Your task to perform on an android device: Add "duracell triple a" to the cart on ebay, then select checkout. Image 0: 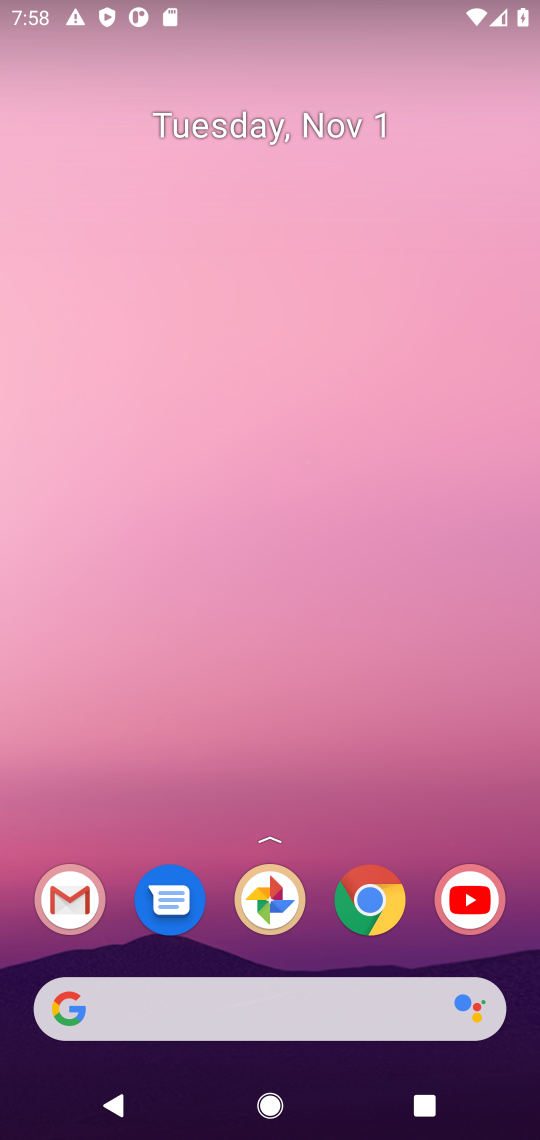
Step 0: drag from (329, 956) to (329, 248)
Your task to perform on an android device: Add "duracell triple a" to the cart on ebay, then select checkout. Image 1: 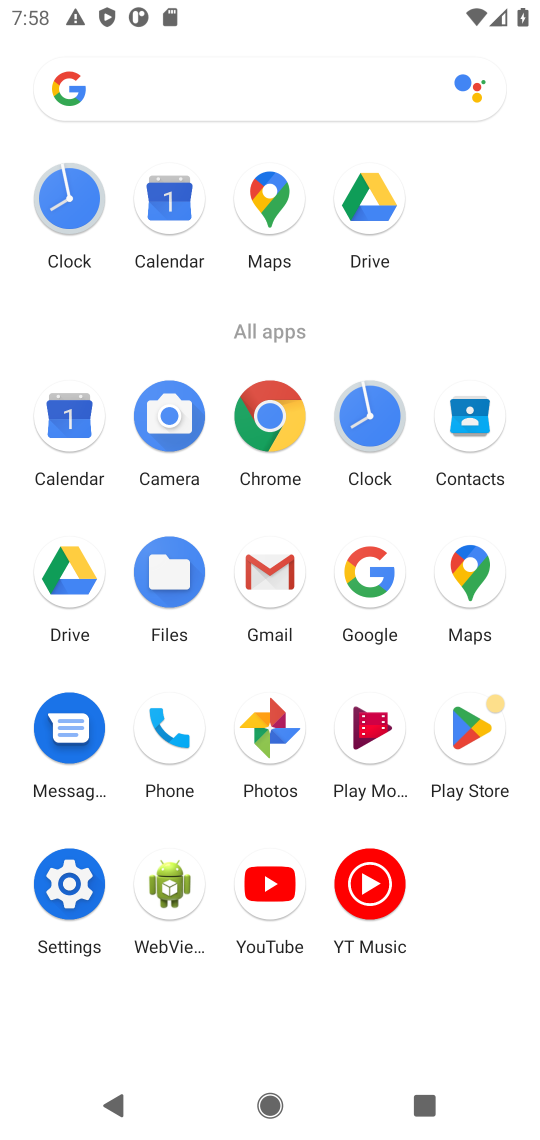
Step 1: click (272, 421)
Your task to perform on an android device: Add "duracell triple a" to the cart on ebay, then select checkout. Image 2: 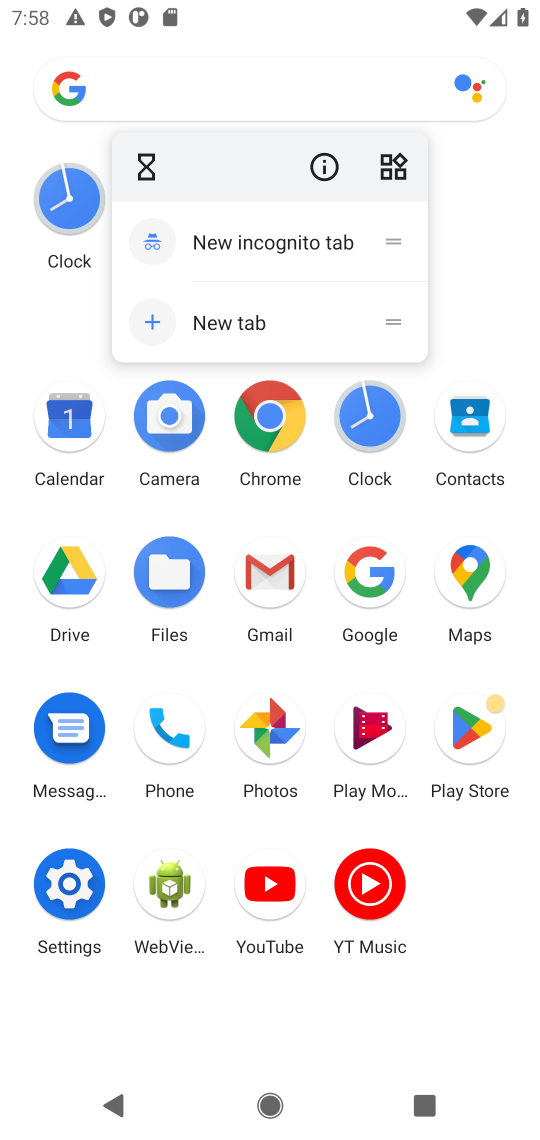
Step 2: click (279, 415)
Your task to perform on an android device: Add "duracell triple a" to the cart on ebay, then select checkout. Image 3: 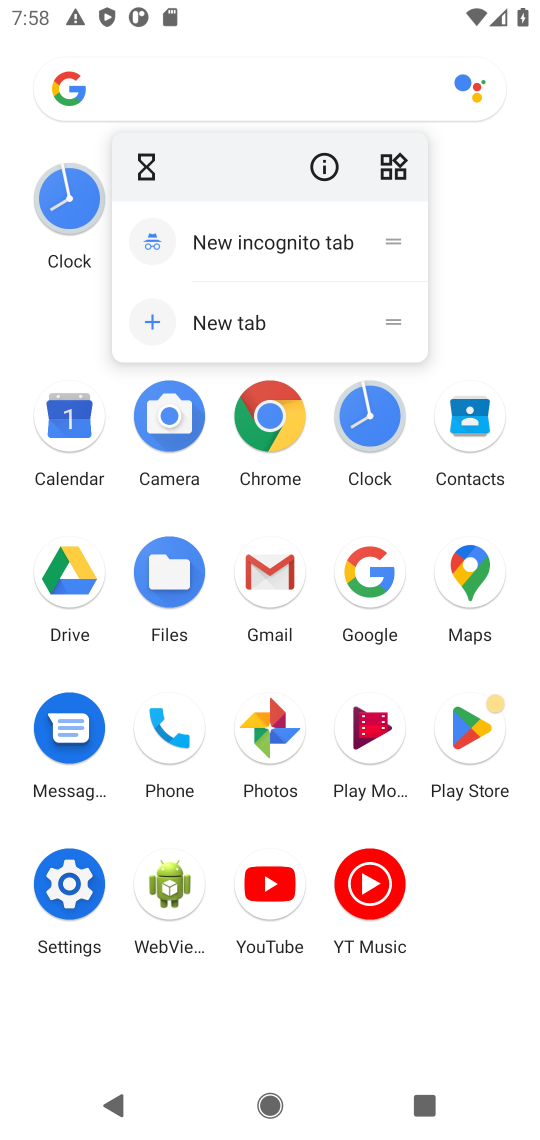
Step 3: click (271, 419)
Your task to perform on an android device: Add "duracell triple a" to the cart on ebay, then select checkout. Image 4: 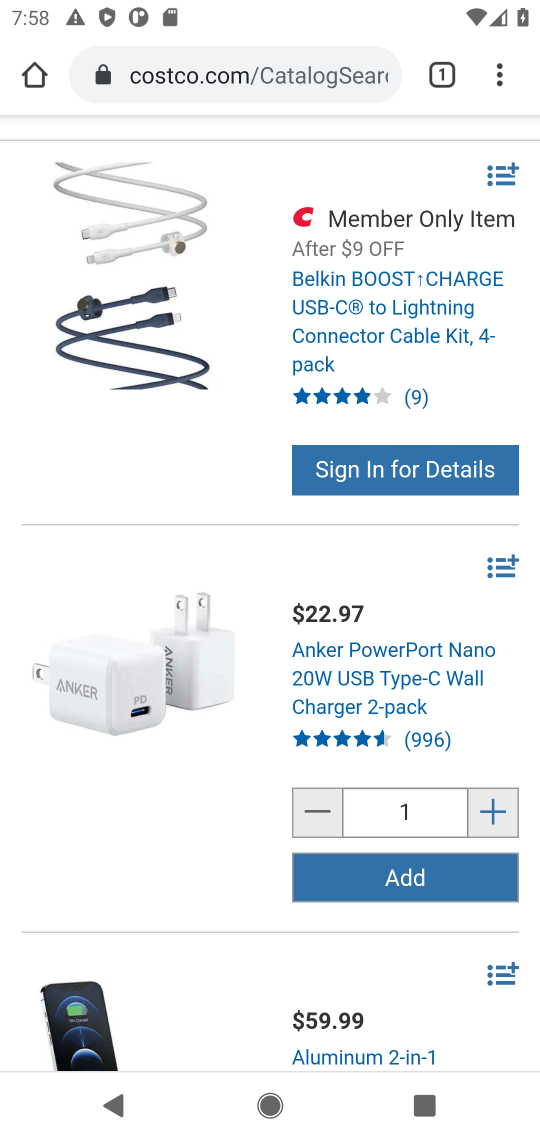
Step 4: click (308, 74)
Your task to perform on an android device: Add "duracell triple a" to the cart on ebay, then select checkout. Image 5: 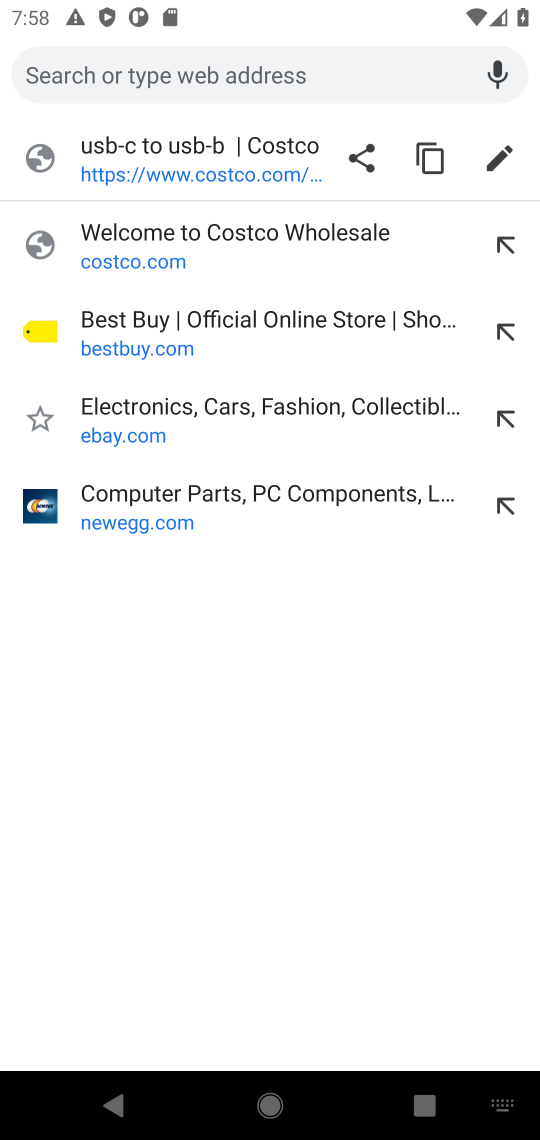
Step 5: type "ebay.com"
Your task to perform on an android device: Add "duracell triple a" to the cart on ebay, then select checkout. Image 6: 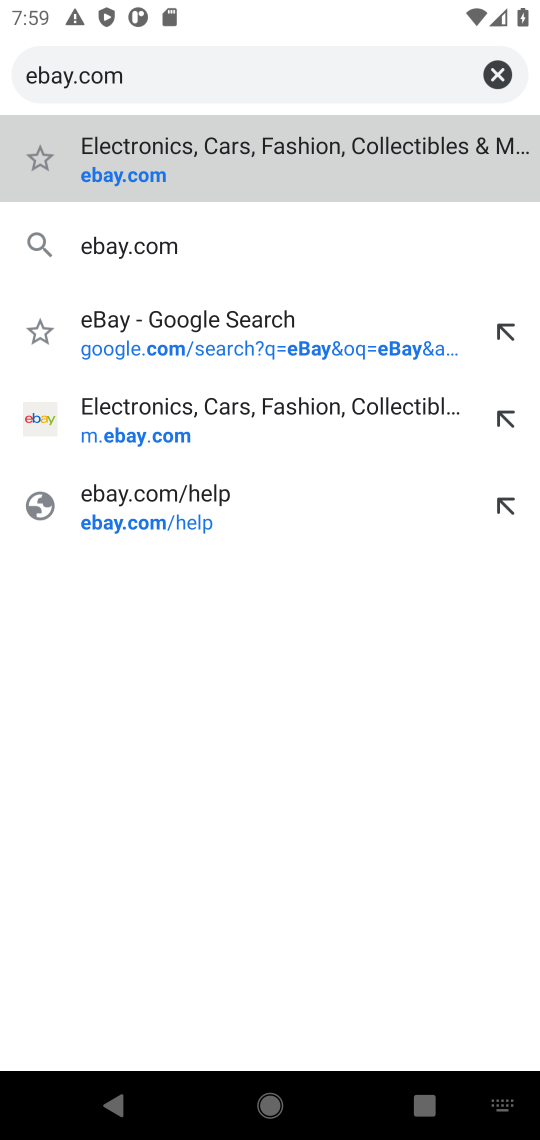
Step 6: press enter
Your task to perform on an android device: Add "duracell triple a" to the cart on ebay, then select checkout. Image 7: 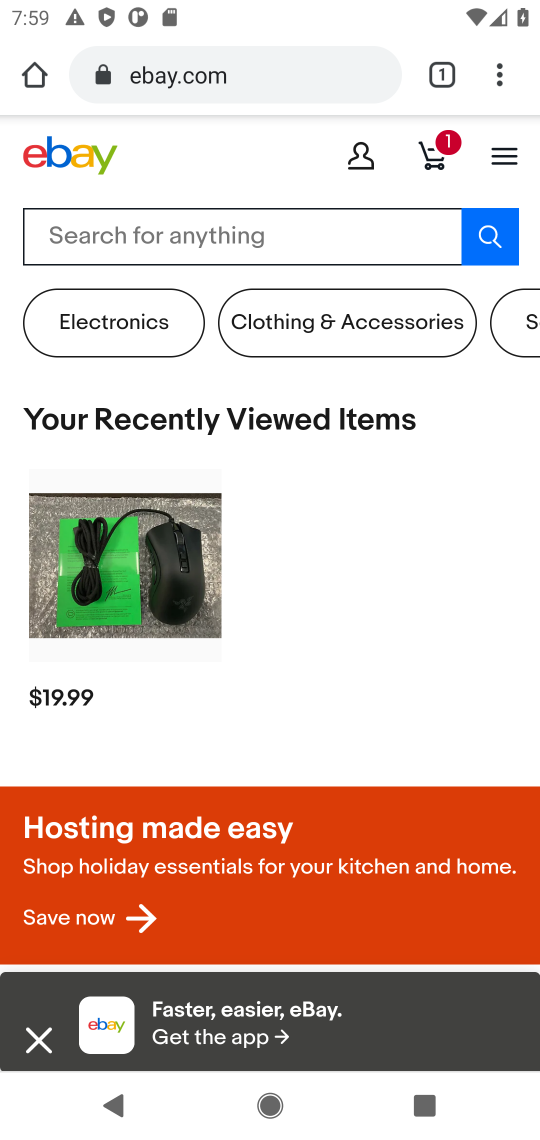
Step 7: click (264, 238)
Your task to perform on an android device: Add "duracell triple a" to the cart on ebay, then select checkout. Image 8: 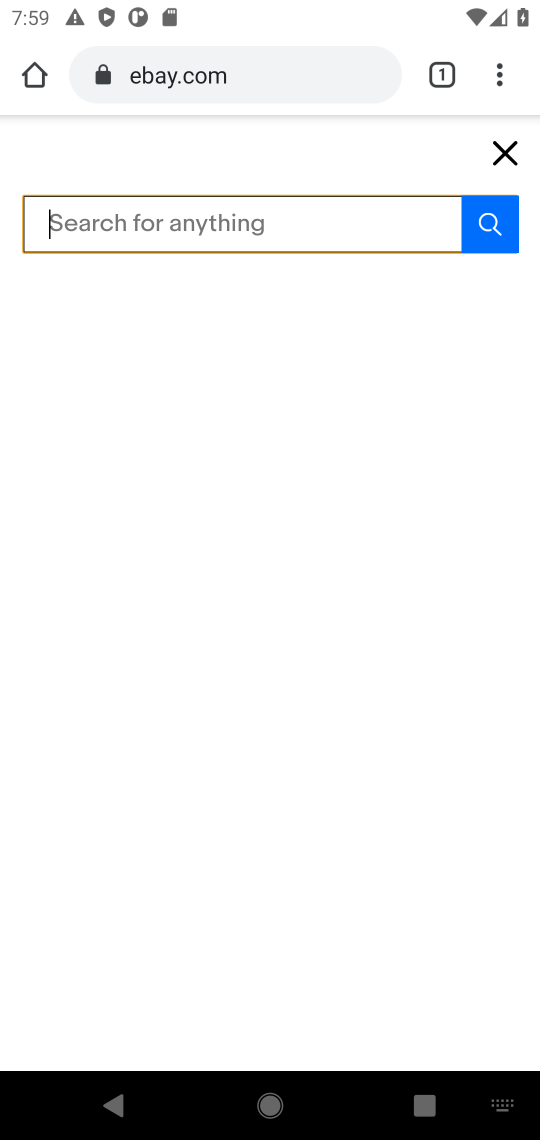
Step 8: type "duracell triple a"
Your task to perform on an android device: Add "duracell triple a" to the cart on ebay, then select checkout. Image 9: 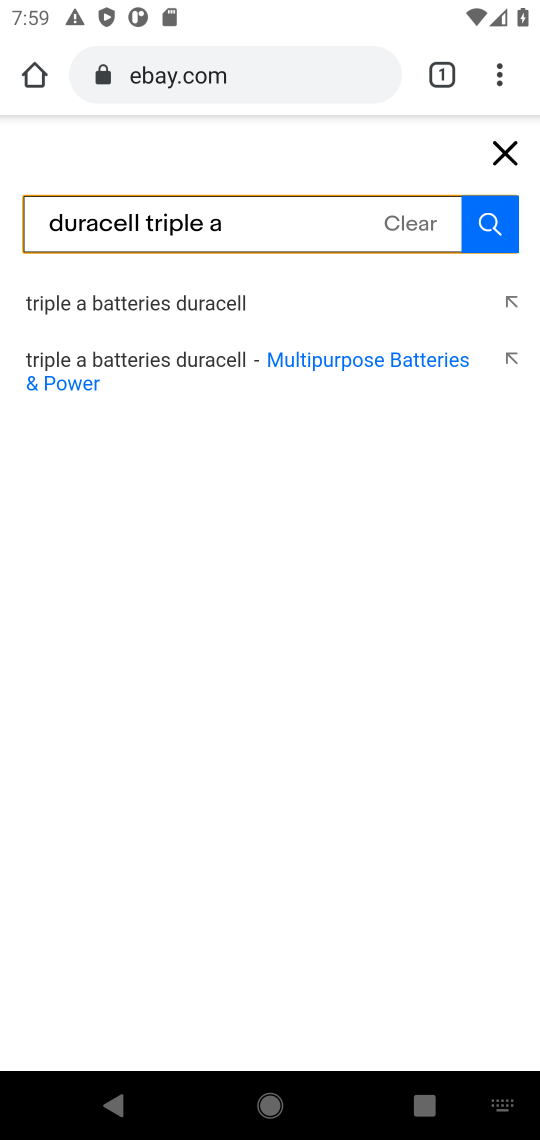
Step 9: press enter
Your task to perform on an android device: Add "duracell triple a" to the cart on ebay, then select checkout. Image 10: 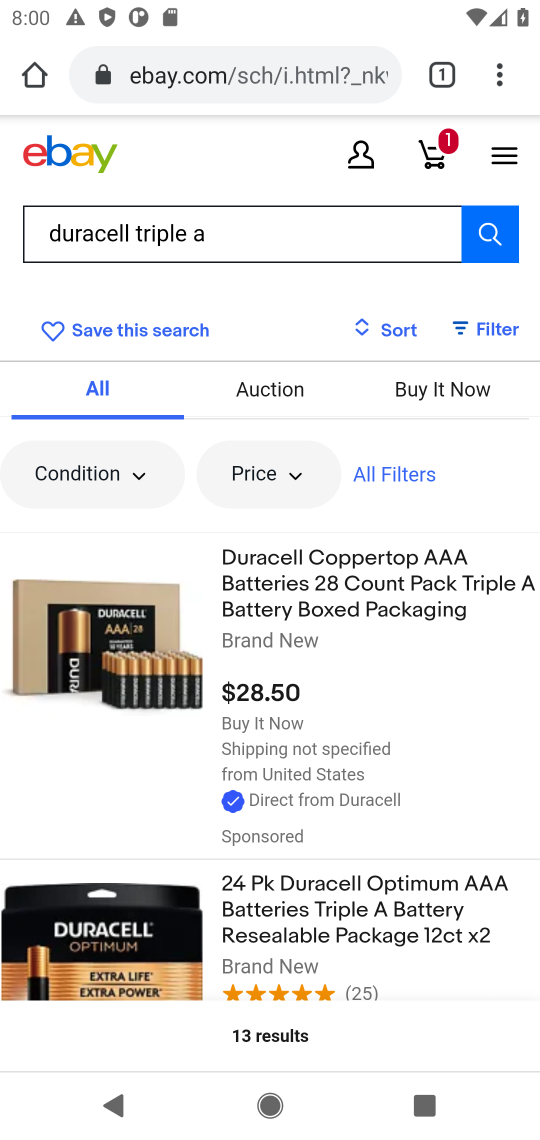
Step 10: click (65, 613)
Your task to perform on an android device: Add "duracell triple a" to the cart on ebay, then select checkout. Image 11: 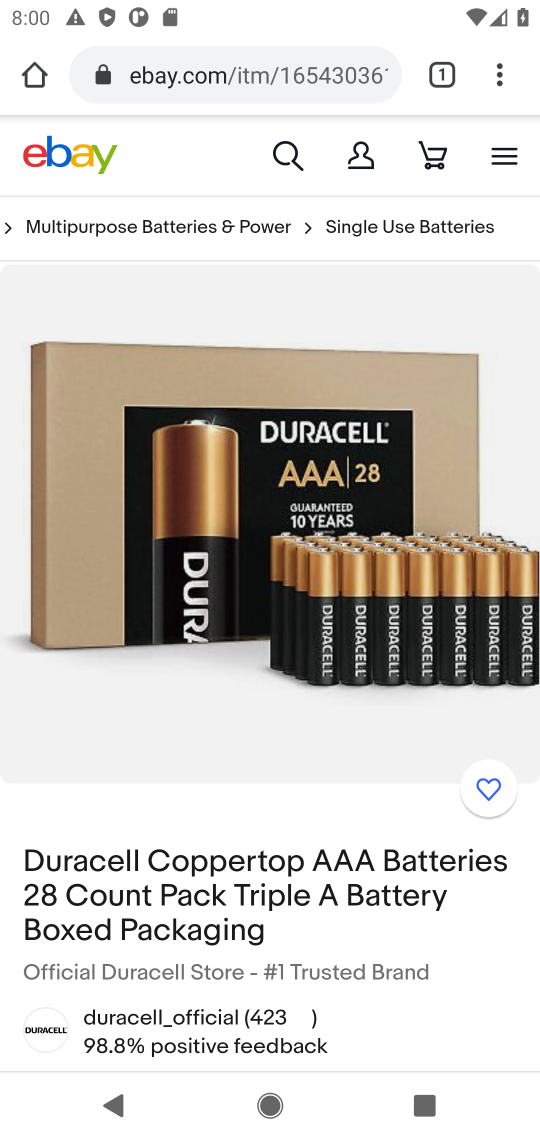
Step 11: drag from (195, 711) to (224, 187)
Your task to perform on an android device: Add "duracell triple a" to the cart on ebay, then select checkout. Image 12: 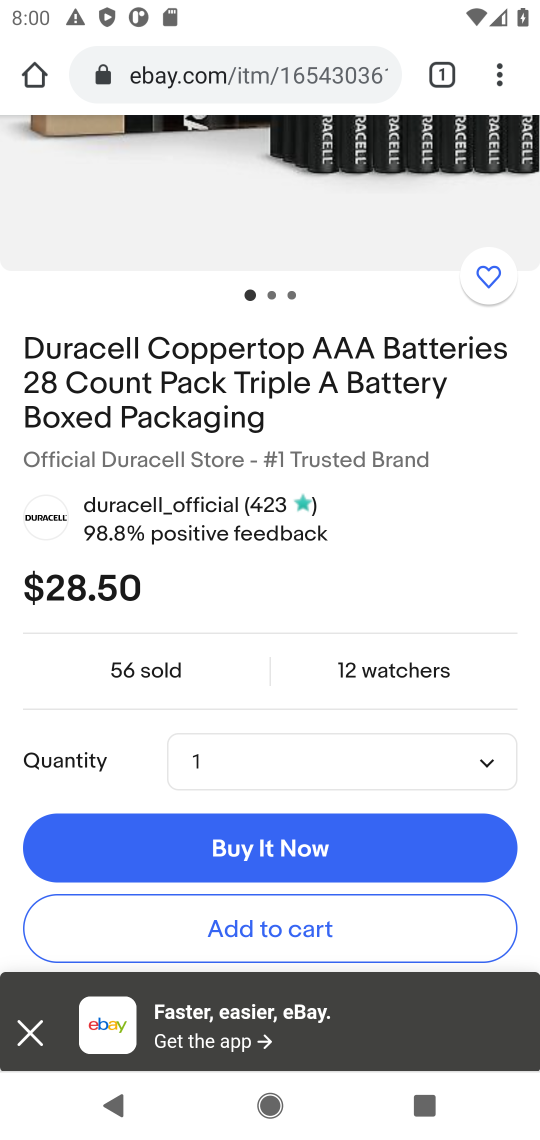
Step 12: click (317, 928)
Your task to perform on an android device: Add "duracell triple a" to the cart on ebay, then select checkout. Image 13: 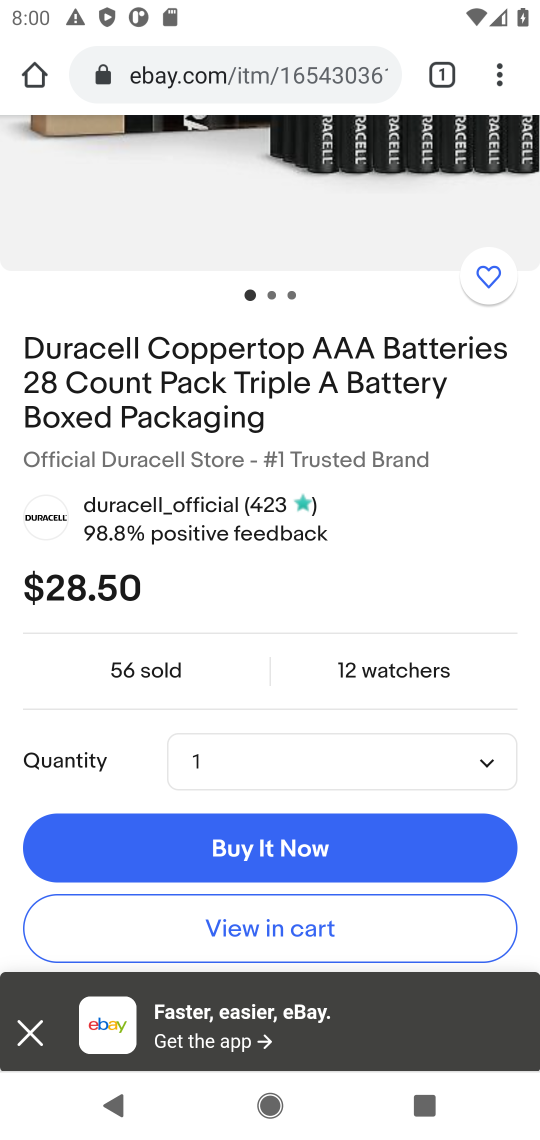
Step 13: click (306, 939)
Your task to perform on an android device: Add "duracell triple a" to the cart on ebay, then select checkout. Image 14: 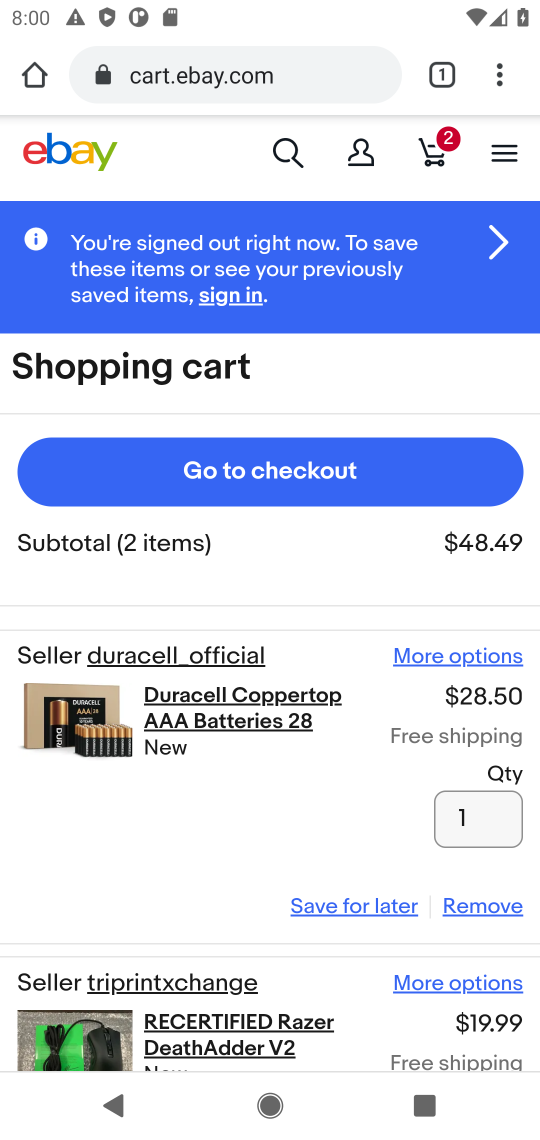
Step 14: click (297, 470)
Your task to perform on an android device: Add "duracell triple a" to the cart on ebay, then select checkout. Image 15: 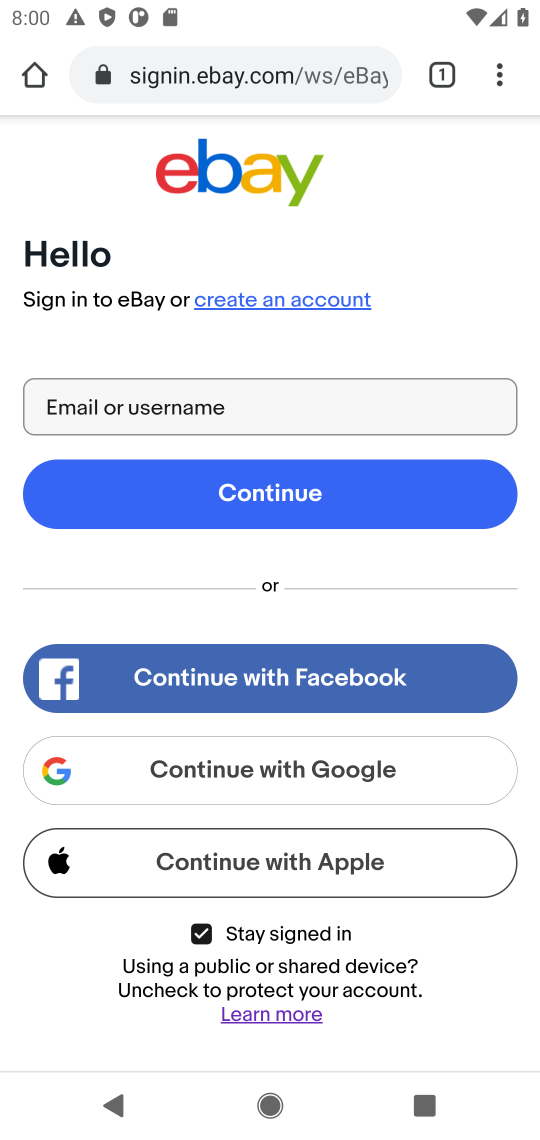
Step 15: task complete